Your task to perform on an android device: Open Google Maps and go to "Timeline" Image 0: 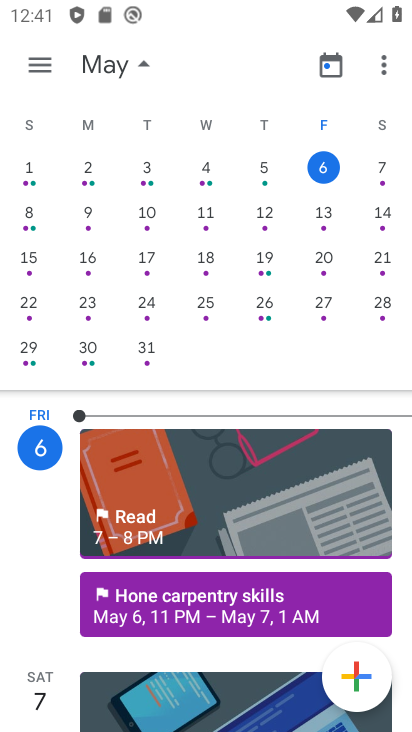
Step 0: press home button
Your task to perform on an android device: Open Google Maps and go to "Timeline" Image 1: 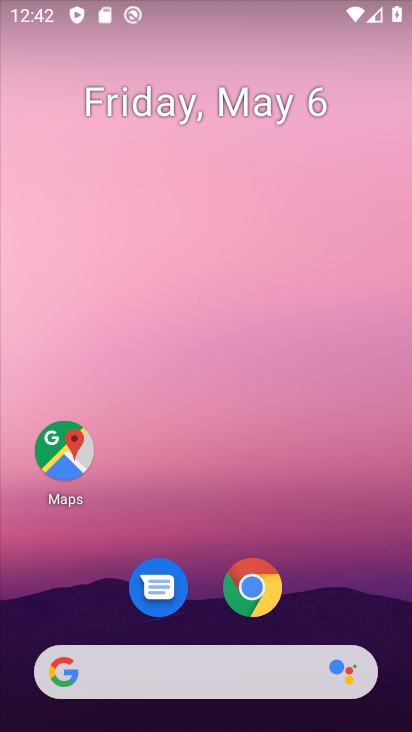
Step 1: click (69, 462)
Your task to perform on an android device: Open Google Maps and go to "Timeline" Image 2: 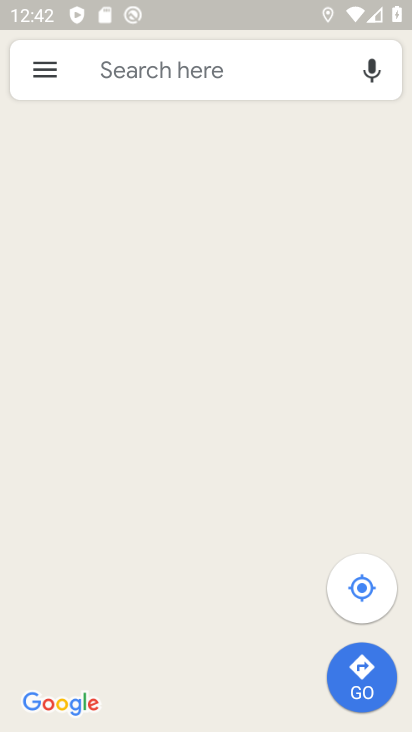
Step 2: click (47, 75)
Your task to perform on an android device: Open Google Maps and go to "Timeline" Image 3: 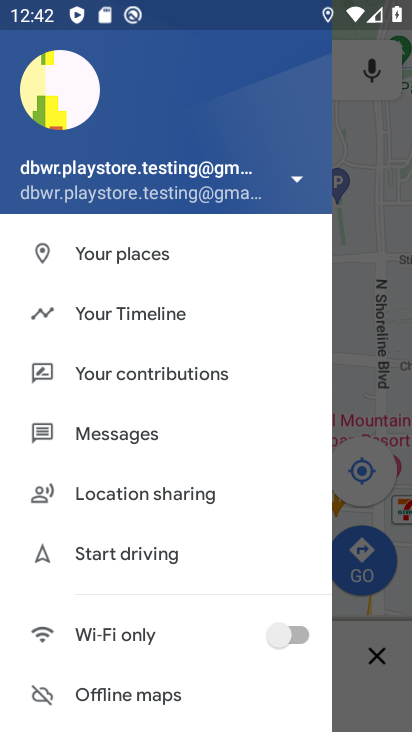
Step 3: click (152, 322)
Your task to perform on an android device: Open Google Maps and go to "Timeline" Image 4: 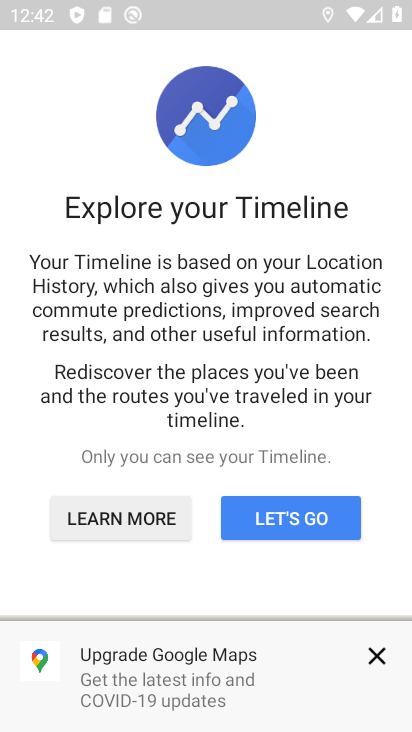
Step 4: click (379, 653)
Your task to perform on an android device: Open Google Maps and go to "Timeline" Image 5: 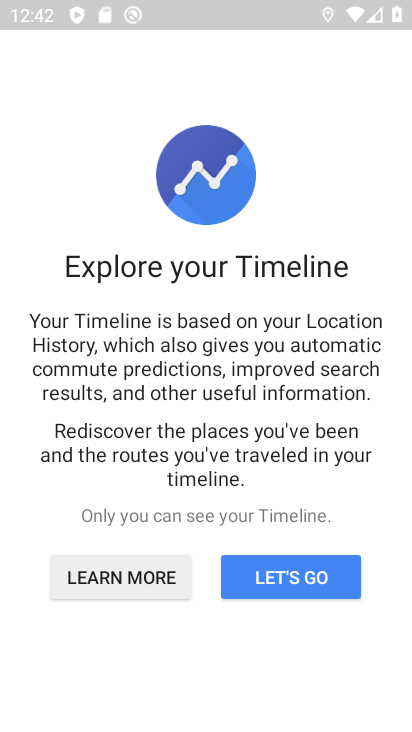
Step 5: click (312, 584)
Your task to perform on an android device: Open Google Maps and go to "Timeline" Image 6: 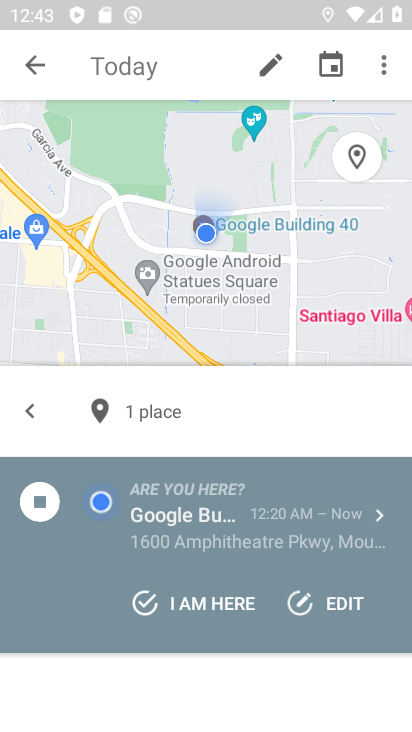
Step 6: task complete